Your task to perform on an android device: see creations saved in the google photos Image 0: 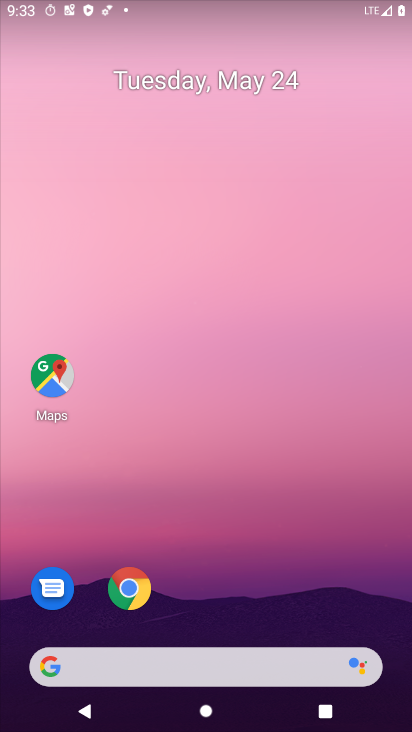
Step 0: drag from (268, 584) to (322, 69)
Your task to perform on an android device: see creations saved in the google photos Image 1: 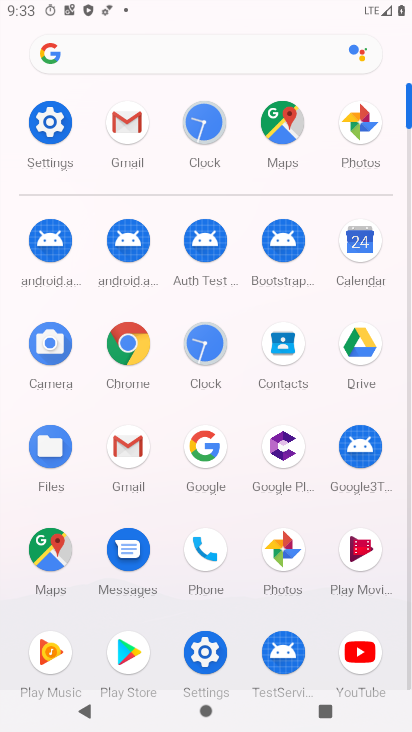
Step 1: click (281, 552)
Your task to perform on an android device: see creations saved in the google photos Image 2: 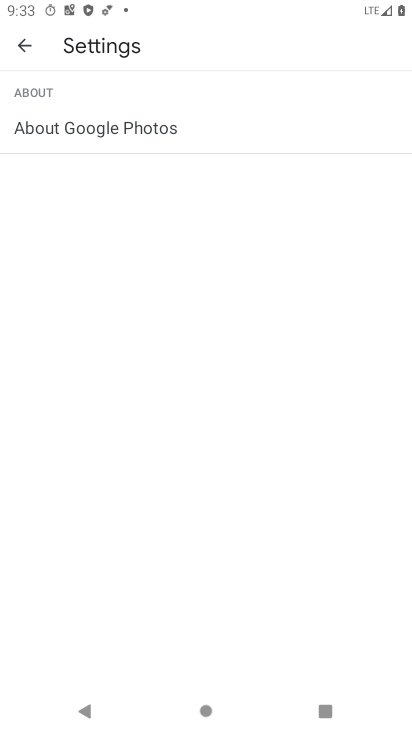
Step 2: click (30, 53)
Your task to perform on an android device: see creations saved in the google photos Image 3: 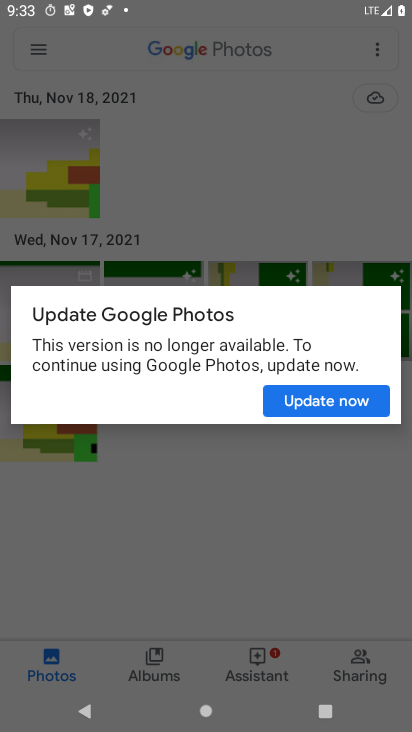
Step 3: click (331, 388)
Your task to perform on an android device: see creations saved in the google photos Image 4: 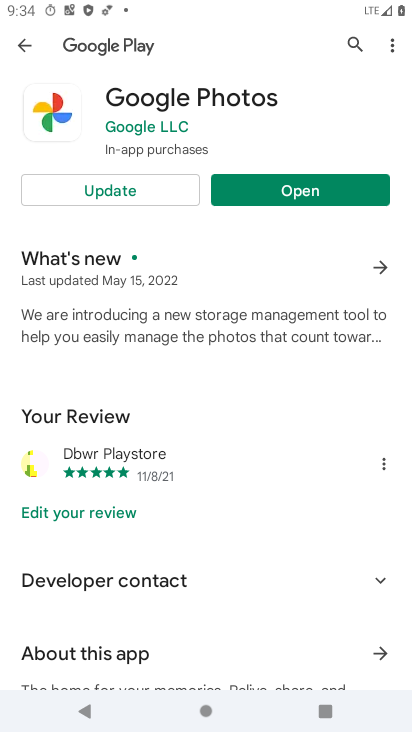
Step 4: click (318, 192)
Your task to perform on an android device: see creations saved in the google photos Image 5: 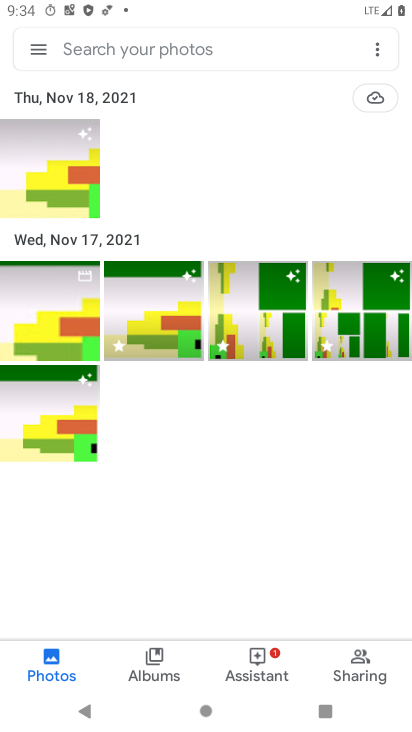
Step 5: click (26, 55)
Your task to perform on an android device: see creations saved in the google photos Image 6: 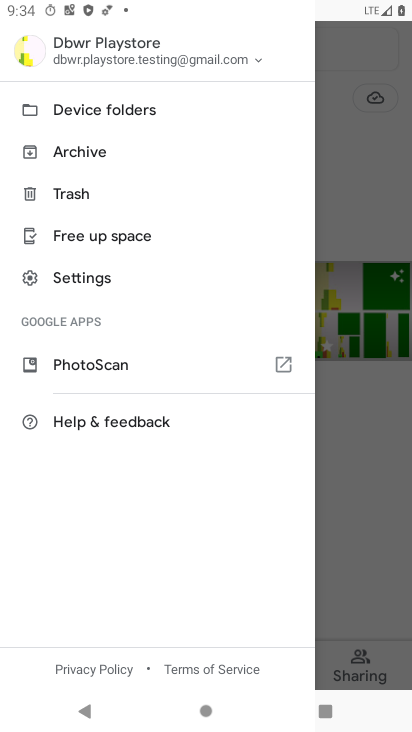
Step 6: click (92, 145)
Your task to perform on an android device: see creations saved in the google photos Image 7: 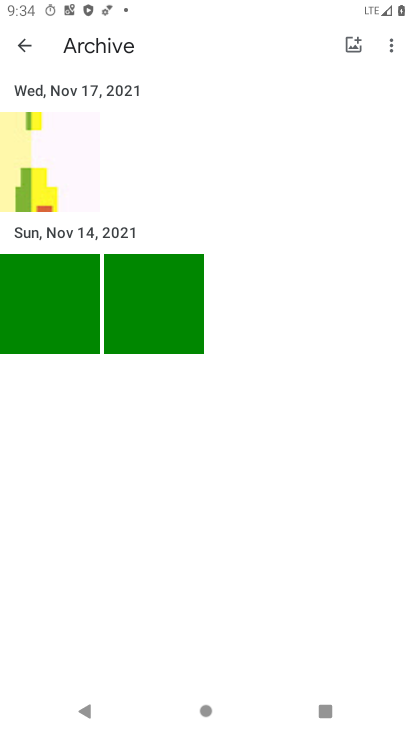
Step 7: task complete